Your task to perform on an android device: Open the Play Movies app and select the watchlist tab. Image 0: 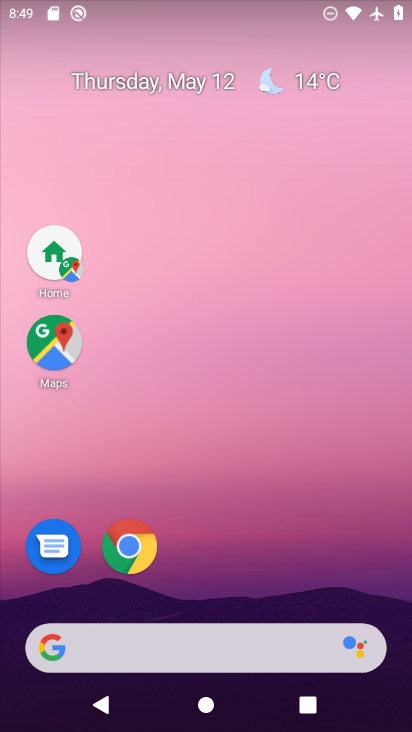
Step 0: drag from (187, 638) to (304, 154)
Your task to perform on an android device: Open the Play Movies app and select the watchlist tab. Image 1: 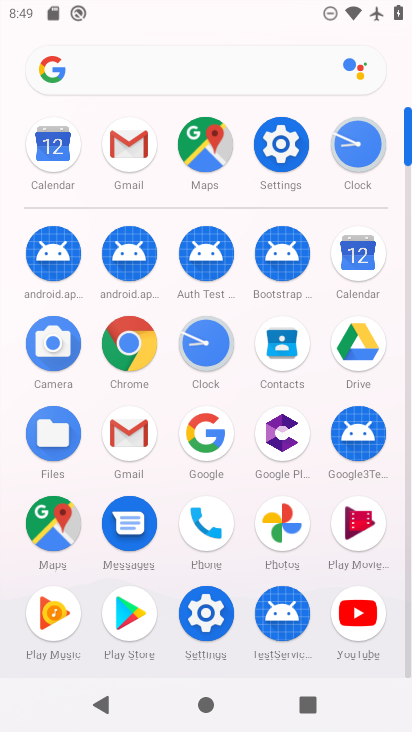
Step 1: click (353, 529)
Your task to perform on an android device: Open the Play Movies app and select the watchlist tab. Image 2: 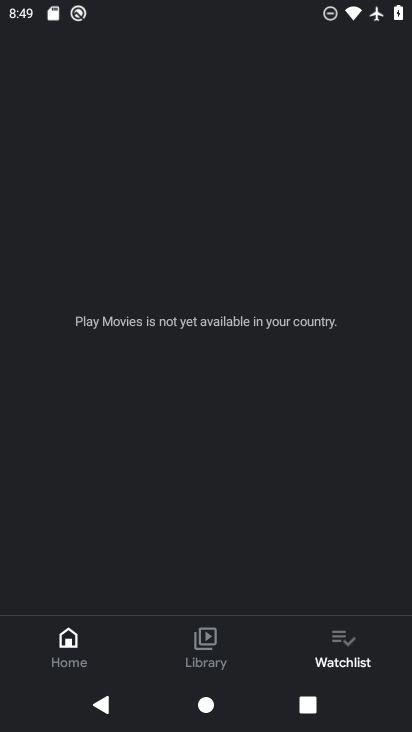
Step 2: click (347, 649)
Your task to perform on an android device: Open the Play Movies app and select the watchlist tab. Image 3: 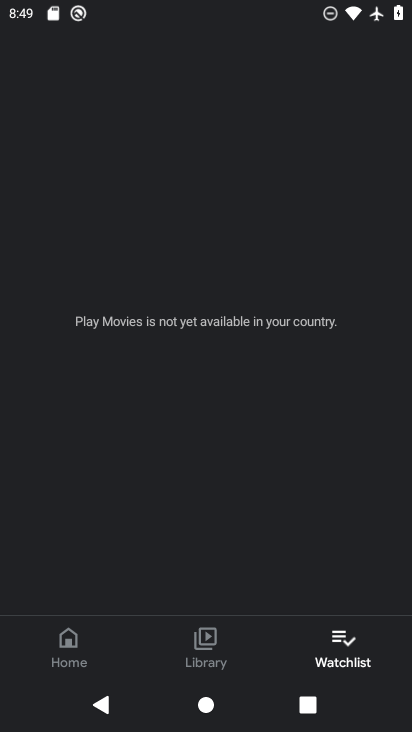
Step 3: task complete